Your task to perform on an android device: Open network settings Image 0: 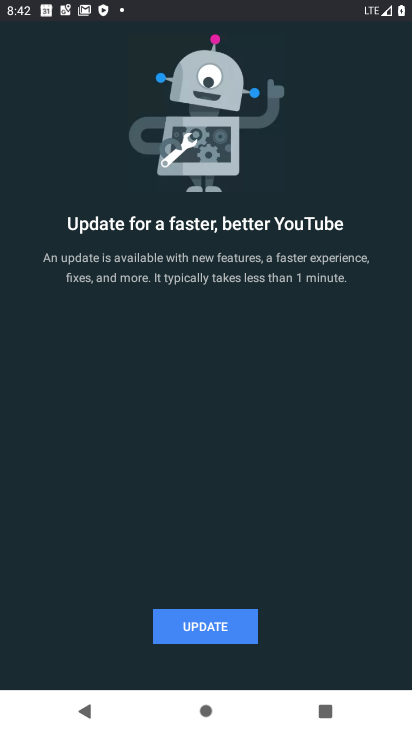
Step 0: press home button
Your task to perform on an android device: Open network settings Image 1: 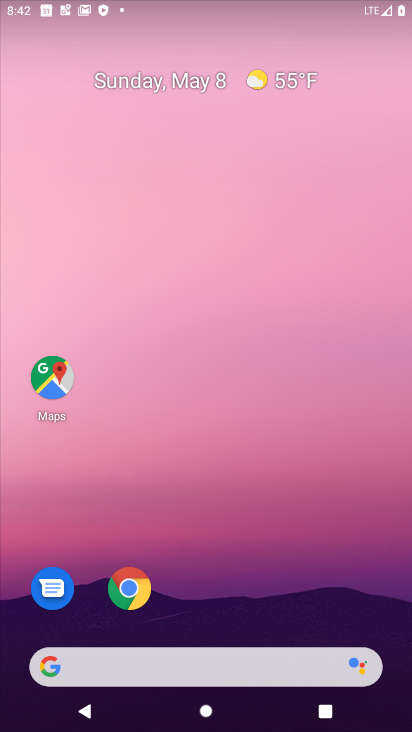
Step 1: drag from (347, 612) to (195, 30)
Your task to perform on an android device: Open network settings Image 2: 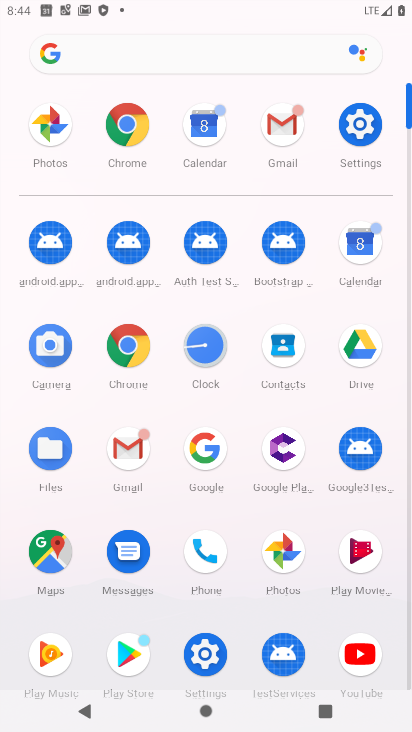
Step 2: click (347, 140)
Your task to perform on an android device: Open network settings Image 3: 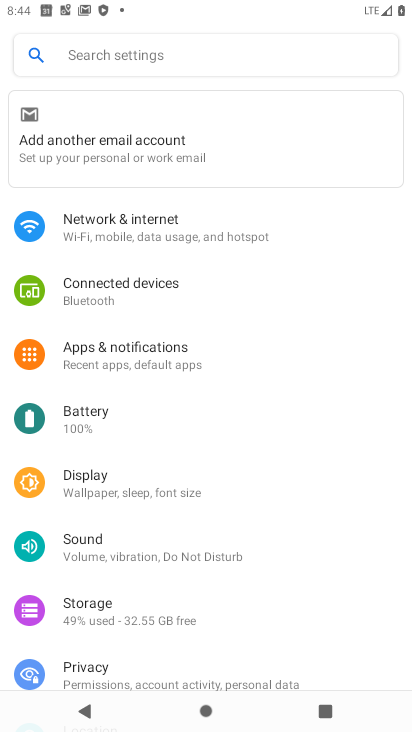
Step 3: click (142, 223)
Your task to perform on an android device: Open network settings Image 4: 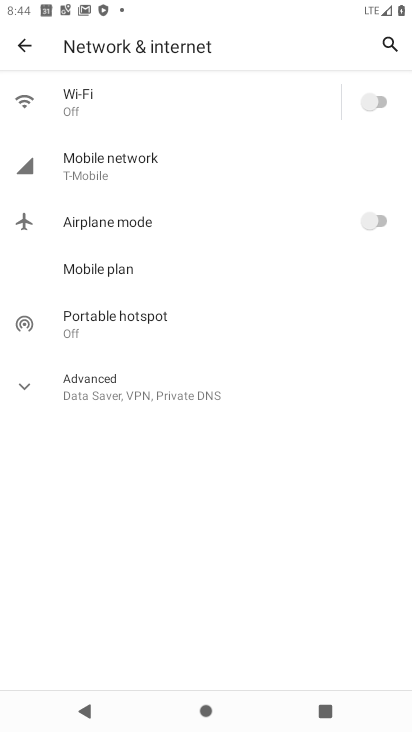
Step 4: task complete